Your task to perform on an android device: Add "razer thresher" to the cart on bestbuy.com Image 0: 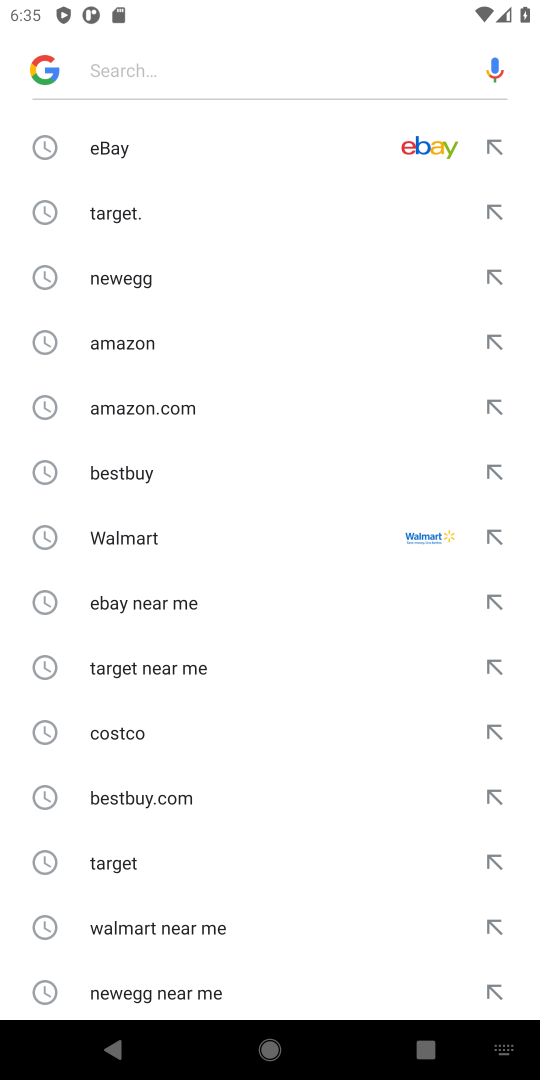
Step 0: press home button
Your task to perform on an android device: Add "razer thresher" to the cart on bestbuy.com Image 1: 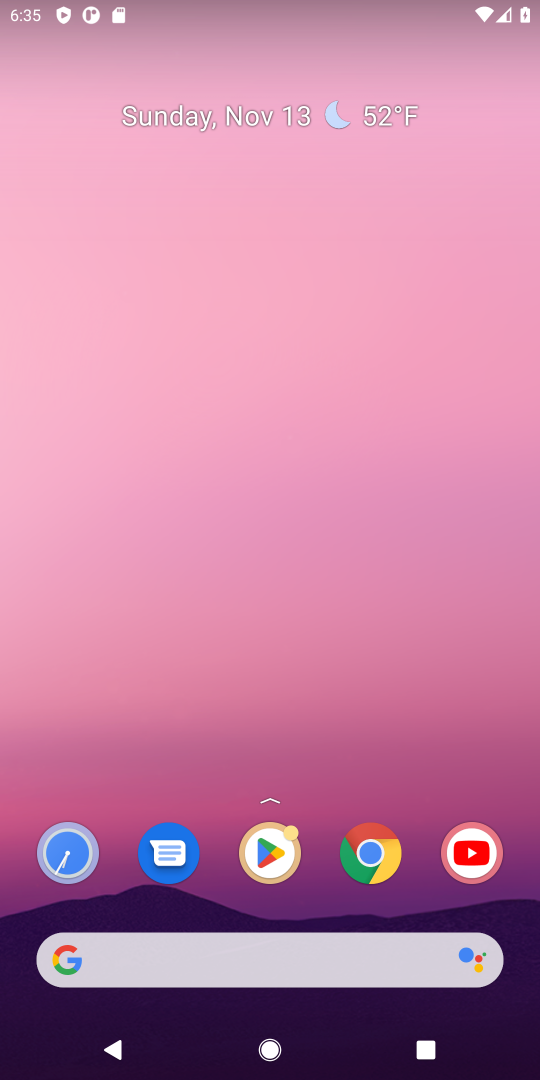
Step 1: click (104, 957)
Your task to perform on an android device: Add "razer thresher" to the cart on bestbuy.com Image 2: 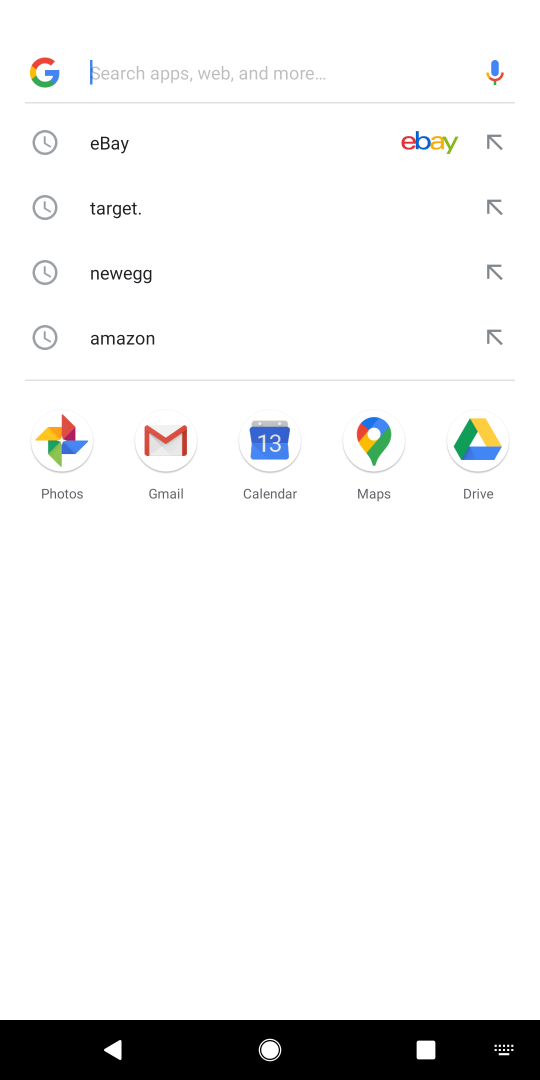
Step 2: type "bestbuy.com"
Your task to perform on an android device: Add "razer thresher" to the cart on bestbuy.com Image 3: 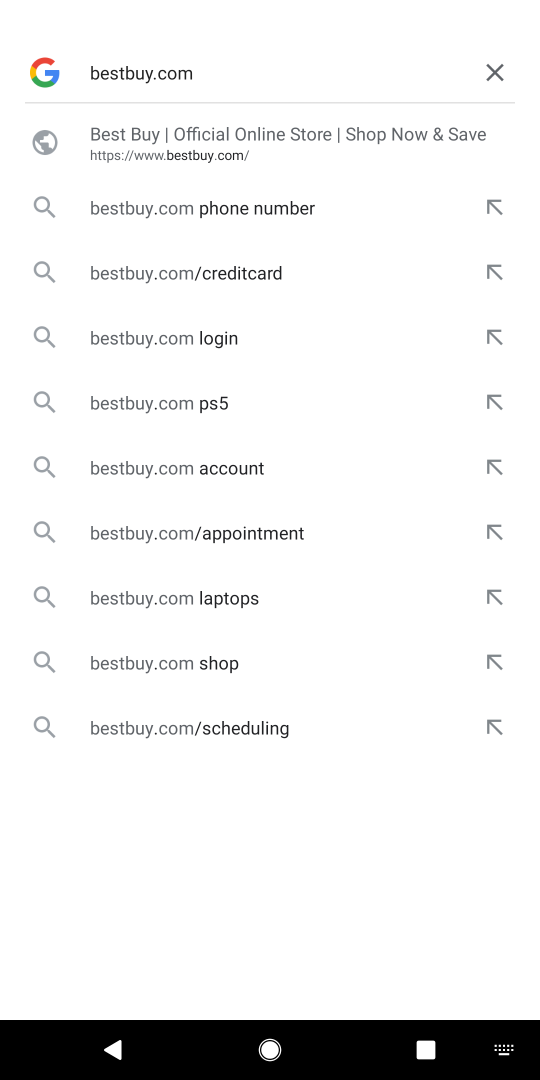
Step 3: press enter
Your task to perform on an android device: Add "razer thresher" to the cart on bestbuy.com Image 4: 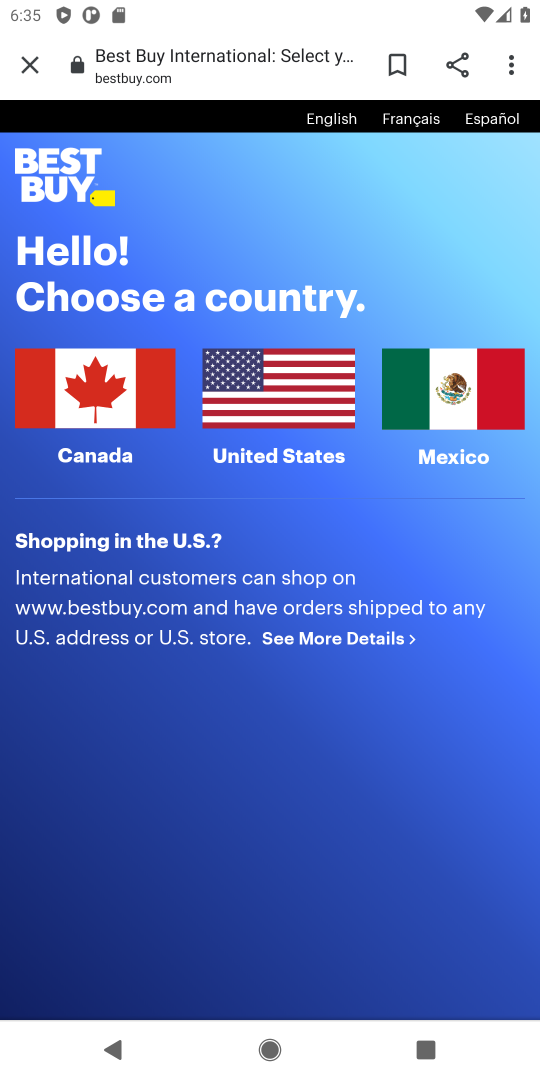
Step 4: click (95, 387)
Your task to perform on an android device: Add "razer thresher" to the cart on bestbuy.com Image 5: 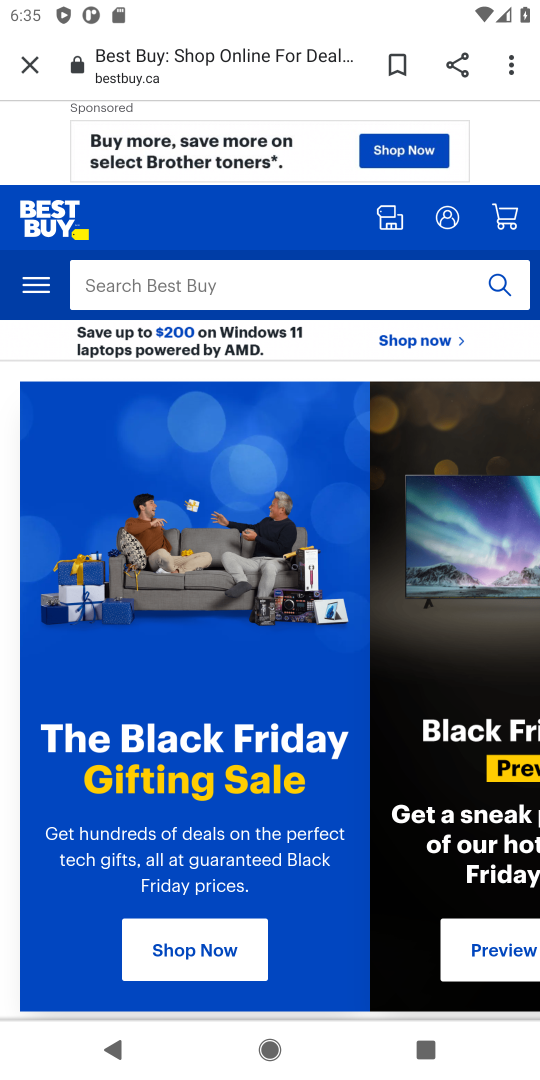
Step 5: click (103, 280)
Your task to perform on an android device: Add "razer thresher" to the cart on bestbuy.com Image 6: 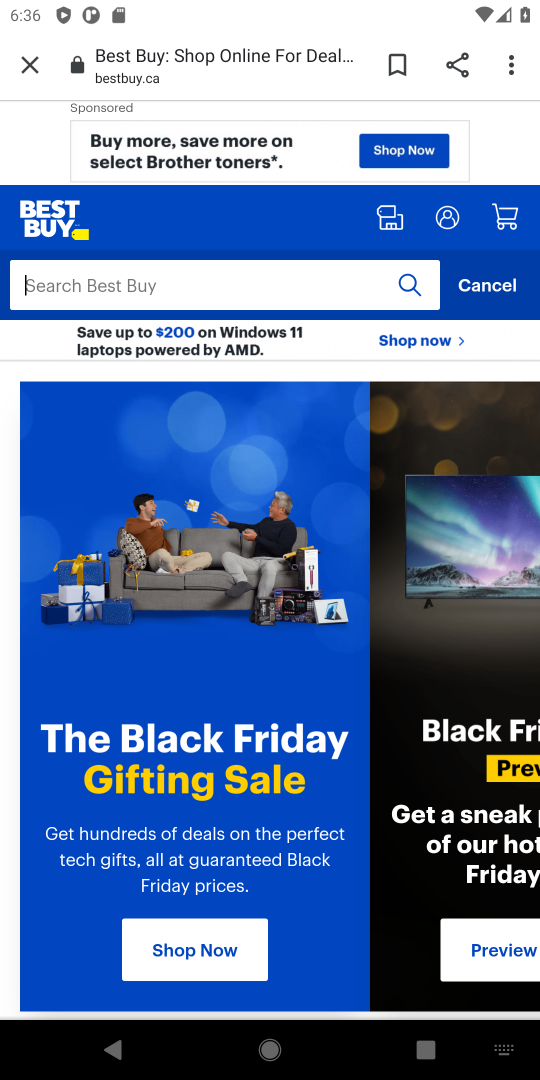
Step 6: type "razer thresher"
Your task to perform on an android device: Add "razer thresher" to the cart on bestbuy.com Image 7: 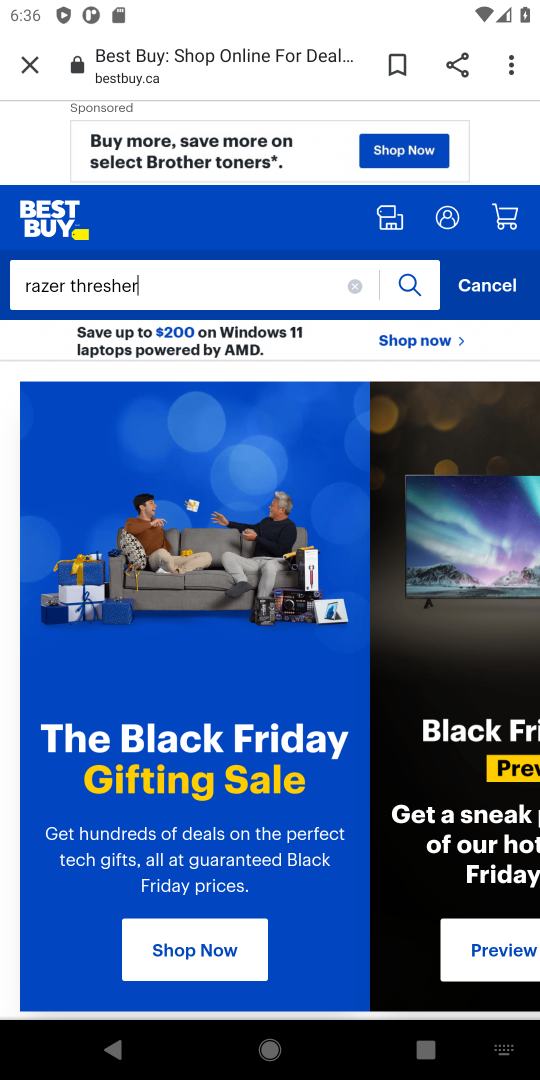
Step 7: press enter
Your task to perform on an android device: Add "razer thresher" to the cart on bestbuy.com Image 8: 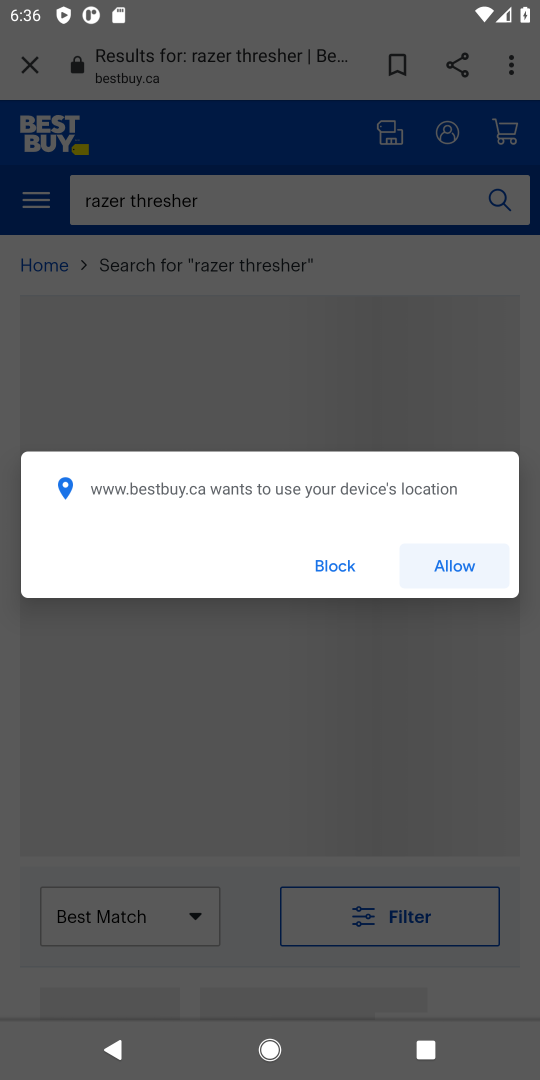
Step 8: click (348, 566)
Your task to perform on an android device: Add "razer thresher" to the cart on bestbuy.com Image 9: 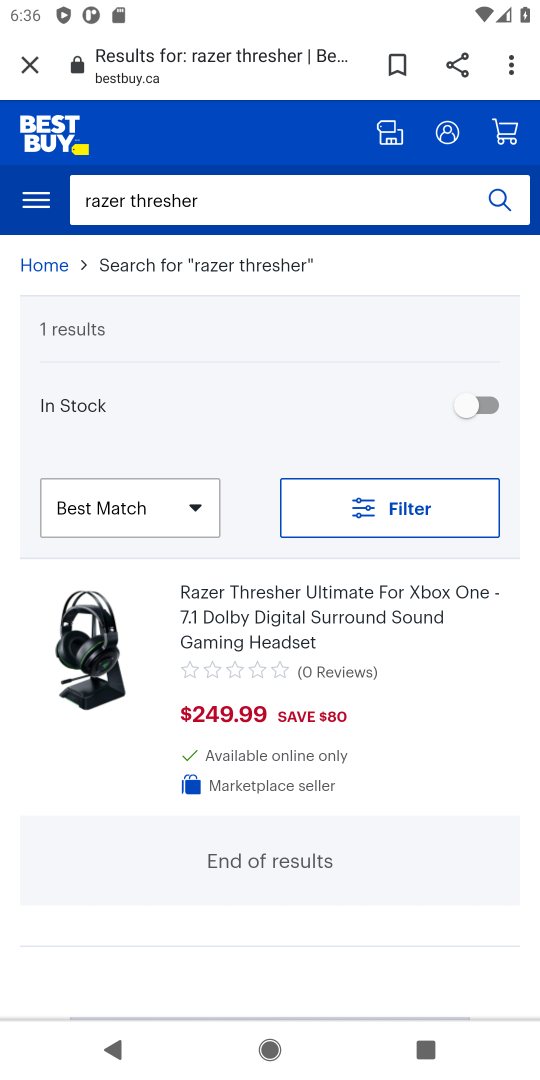
Step 9: drag from (327, 889) to (324, 609)
Your task to perform on an android device: Add "razer thresher" to the cart on bestbuy.com Image 10: 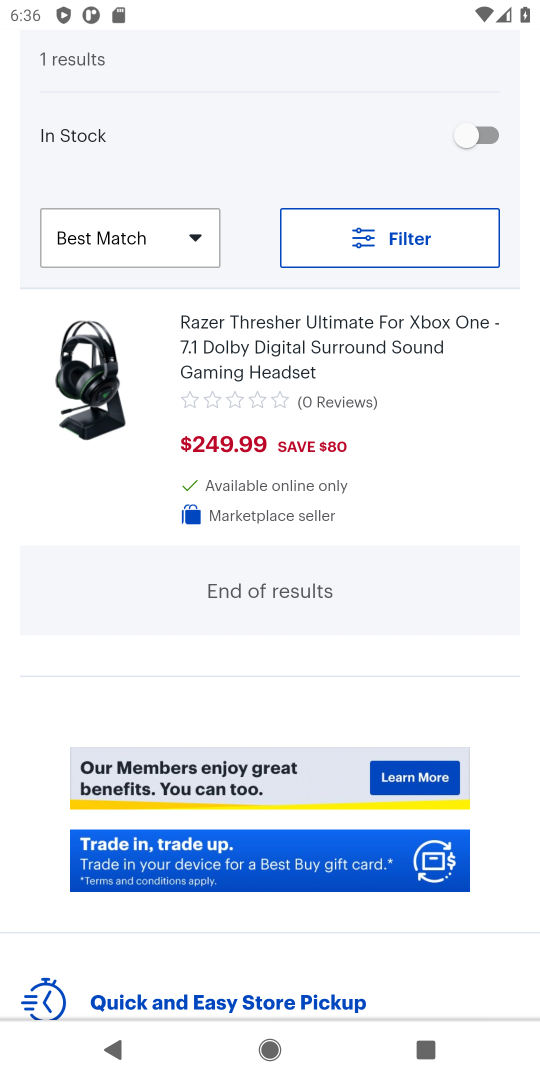
Step 10: click (263, 336)
Your task to perform on an android device: Add "razer thresher" to the cart on bestbuy.com Image 11: 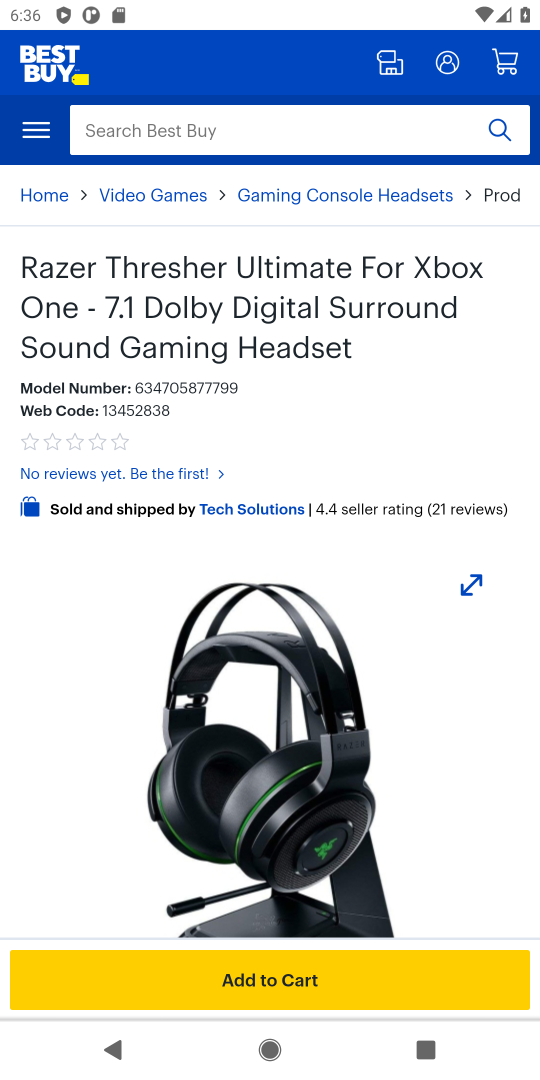
Step 11: drag from (347, 857) to (368, 513)
Your task to perform on an android device: Add "razer thresher" to the cart on bestbuy.com Image 12: 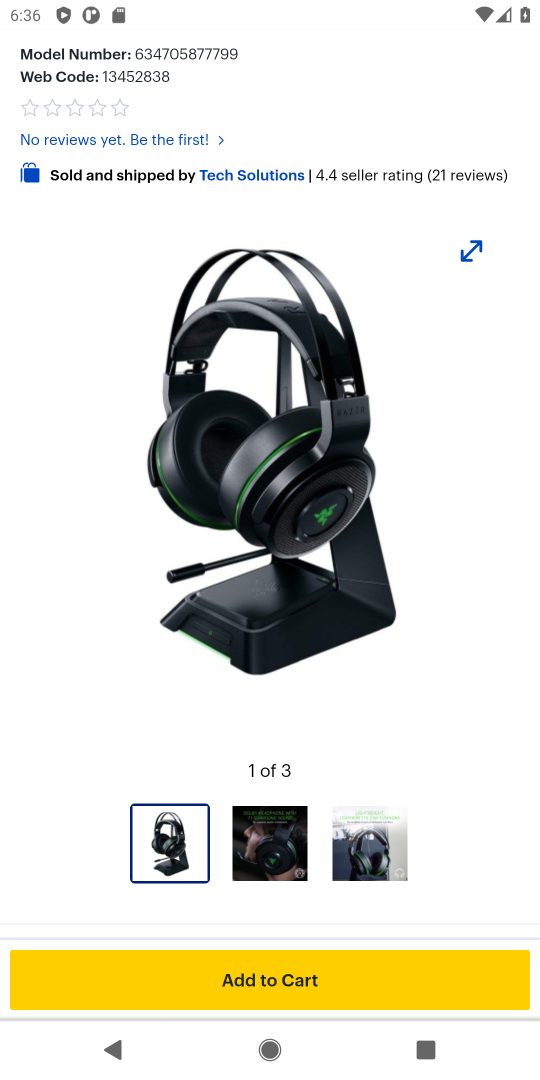
Step 12: click (320, 980)
Your task to perform on an android device: Add "razer thresher" to the cart on bestbuy.com Image 13: 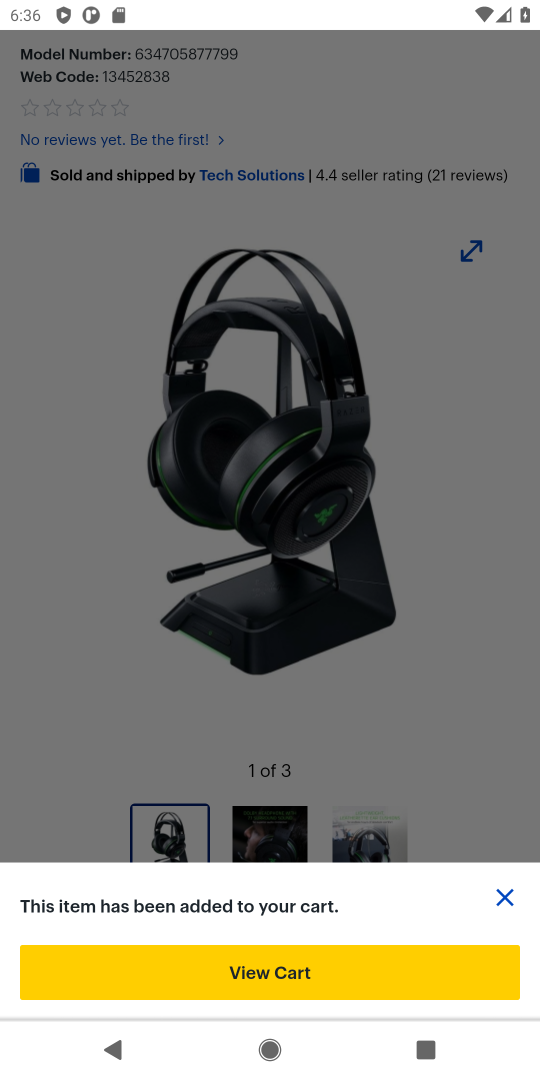
Step 13: task complete